Your task to perform on an android device: toggle pop-ups in chrome Image 0: 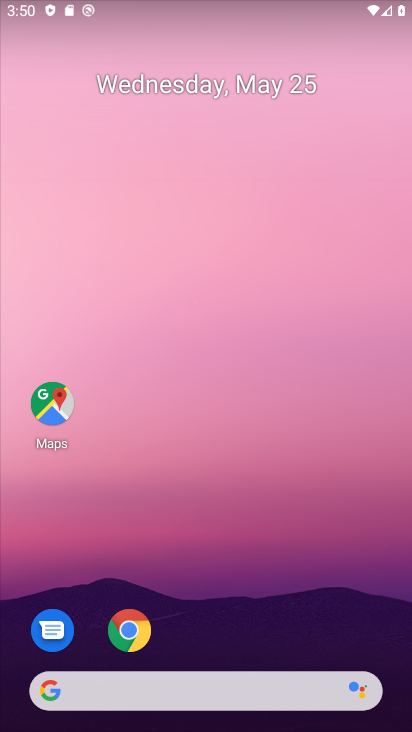
Step 0: drag from (269, 597) to (127, 70)
Your task to perform on an android device: toggle pop-ups in chrome Image 1: 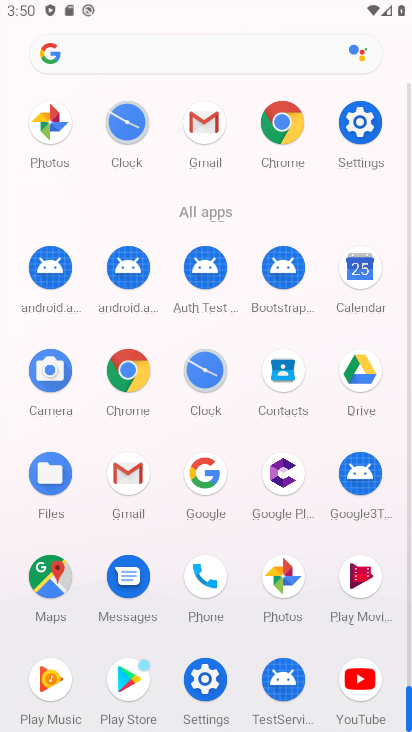
Step 1: click (121, 363)
Your task to perform on an android device: toggle pop-ups in chrome Image 2: 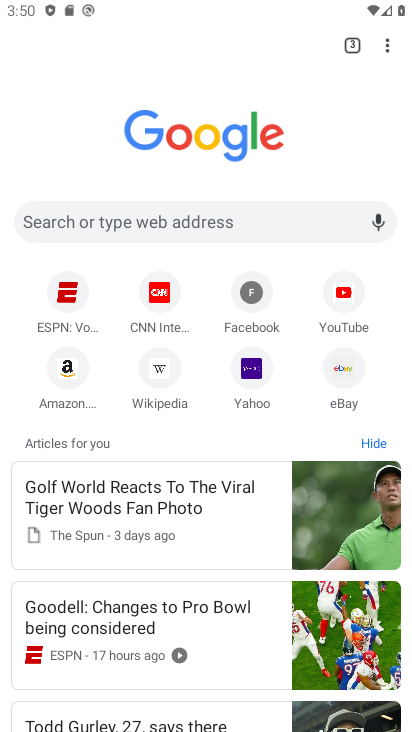
Step 2: drag from (387, 42) to (227, 389)
Your task to perform on an android device: toggle pop-ups in chrome Image 3: 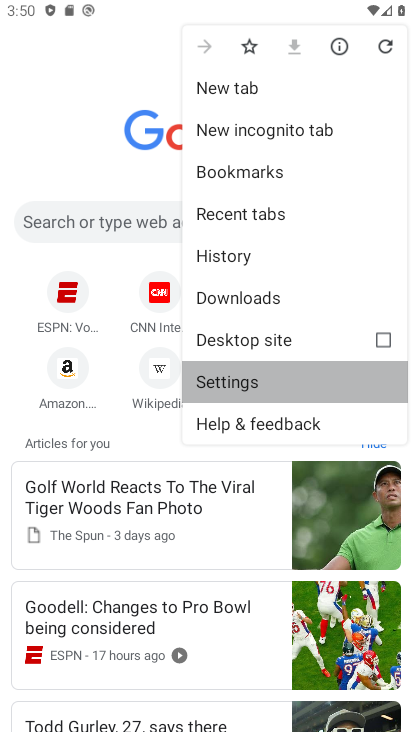
Step 3: click (227, 389)
Your task to perform on an android device: toggle pop-ups in chrome Image 4: 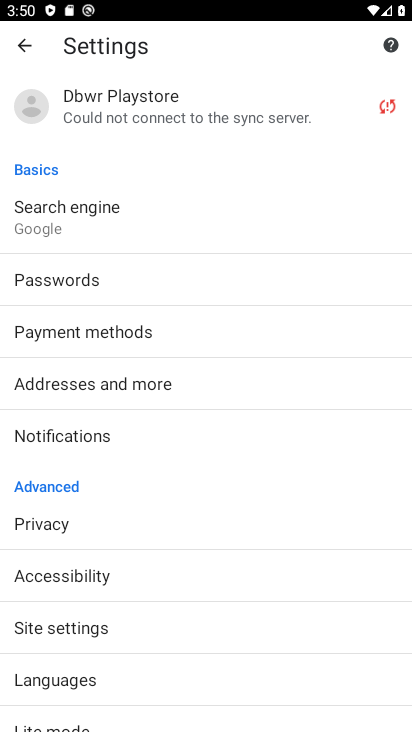
Step 4: drag from (131, 566) to (133, 118)
Your task to perform on an android device: toggle pop-ups in chrome Image 5: 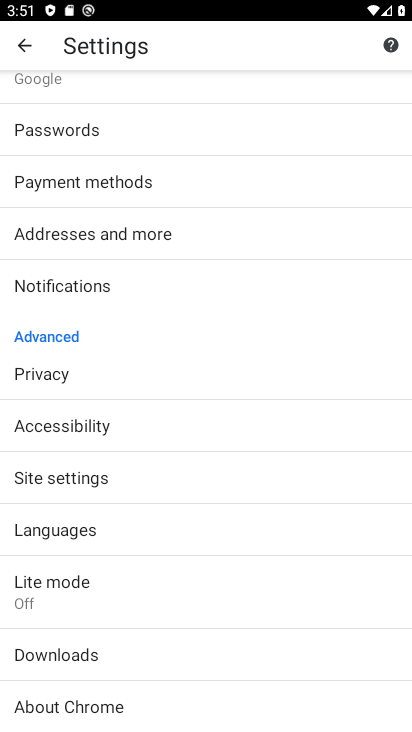
Step 5: click (46, 479)
Your task to perform on an android device: toggle pop-ups in chrome Image 6: 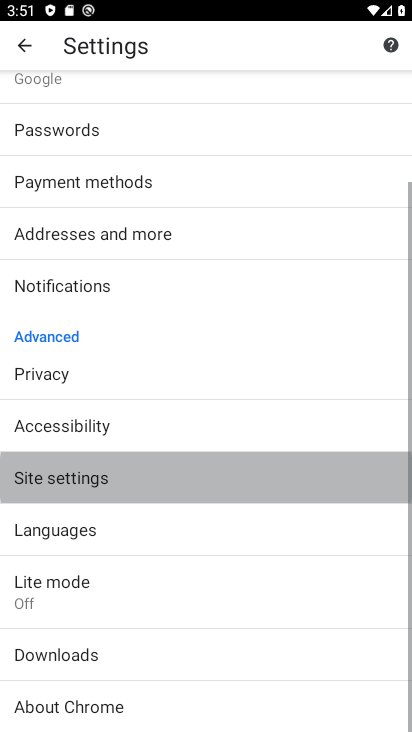
Step 6: click (46, 479)
Your task to perform on an android device: toggle pop-ups in chrome Image 7: 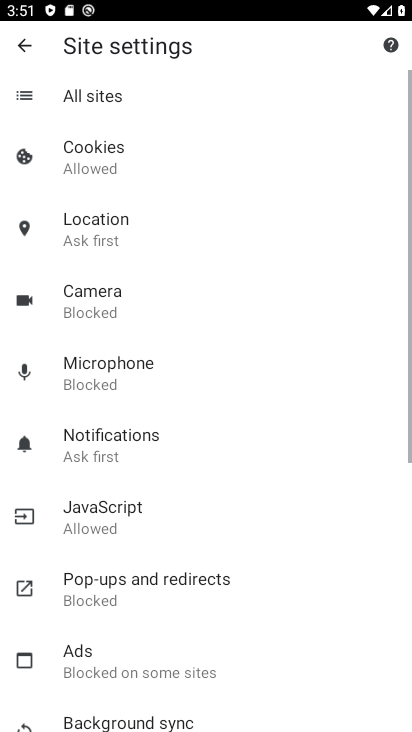
Step 7: click (48, 471)
Your task to perform on an android device: toggle pop-ups in chrome Image 8: 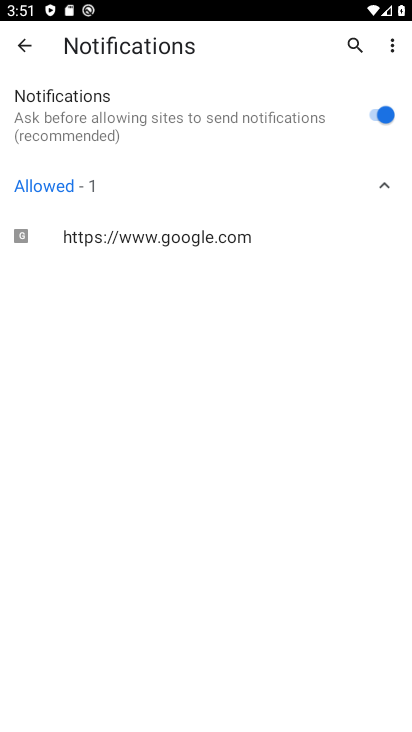
Step 8: click (23, 39)
Your task to perform on an android device: toggle pop-ups in chrome Image 9: 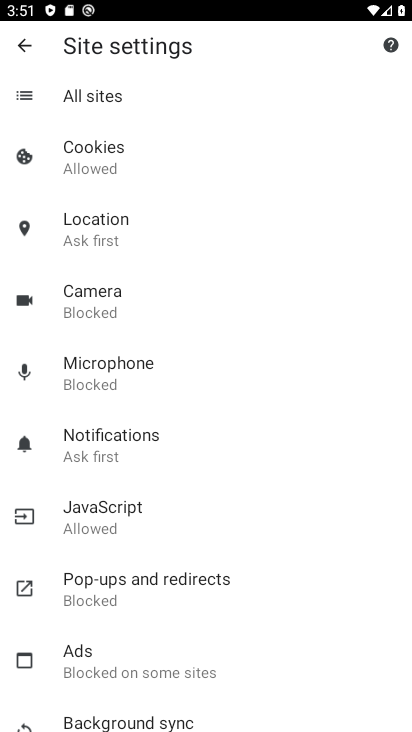
Step 9: click (93, 585)
Your task to perform on an android device: toggle pop-ups in chrome Image 10: 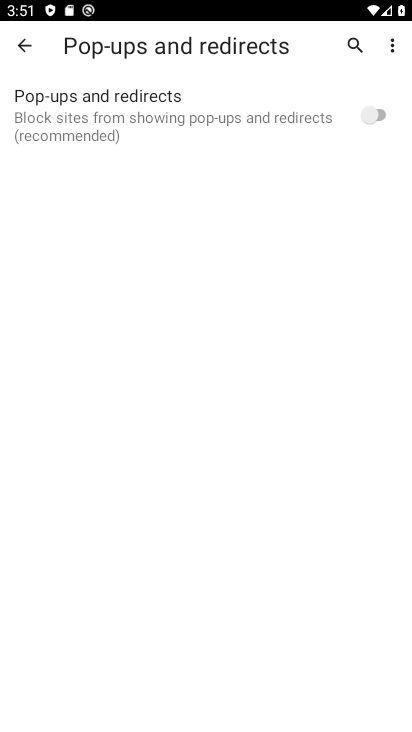
Step 10: click (376, 102)
Your task to perform on an android device: toggle pop-ups in chrome Image 11: 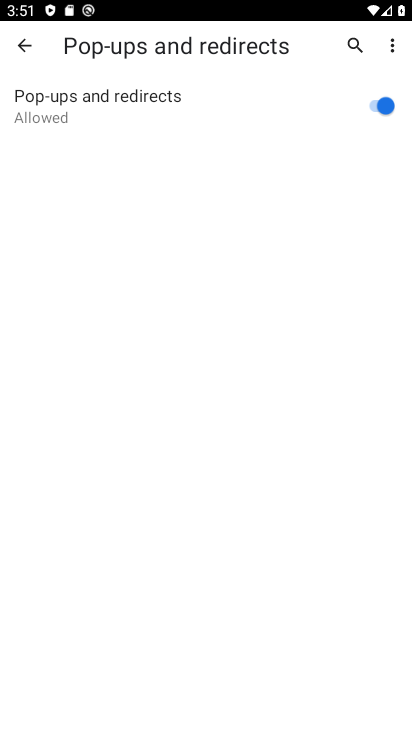
Step 11: task complete